Your task to perform on an android device: Open the calendar and show me this week's events? Image 0: 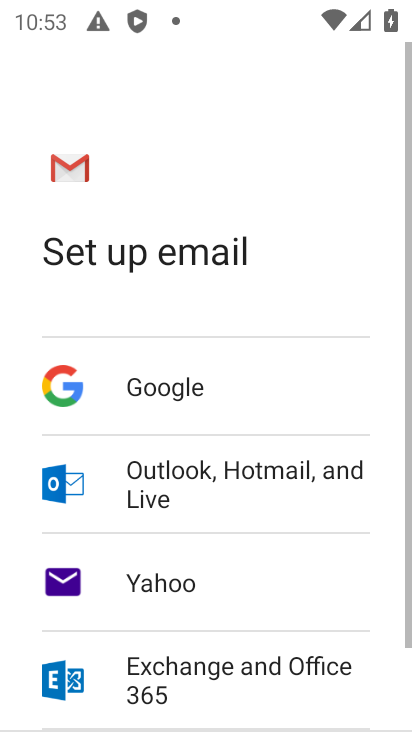
Step 0: press back button
Your task to perform on an android device: Open the calendar and show me this week's events? Image 1: 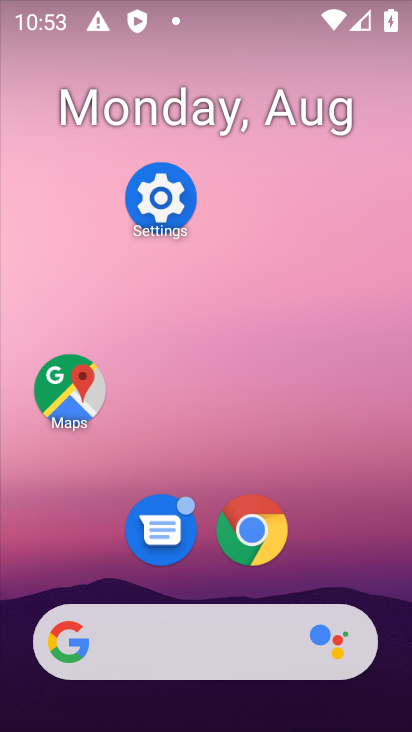
Step 1: click (113, 95)
Your task to perform on an android device: Open the calendar and show me this week's events? Image 2: 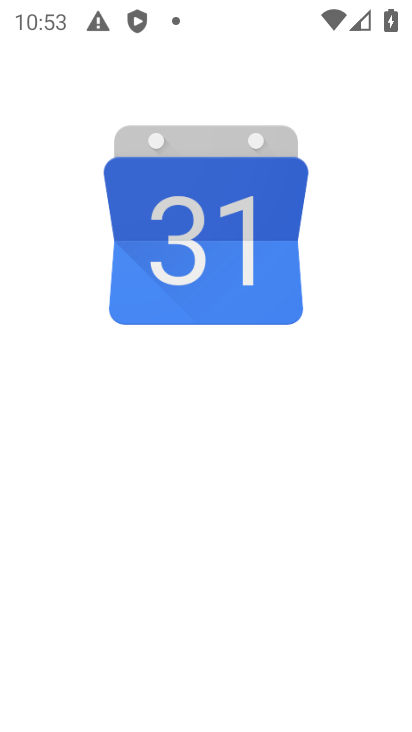
Step 2: click (173, 127)
Your task to perform on an android device: Open the calendar and show me this week's events? Image 3: 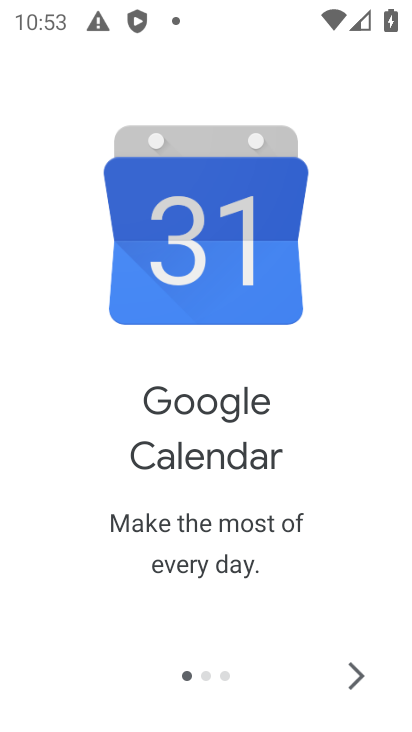
Step 3: press back button
Your task to perform on an android device: Open the calendar and show me this week's events? Image 4: 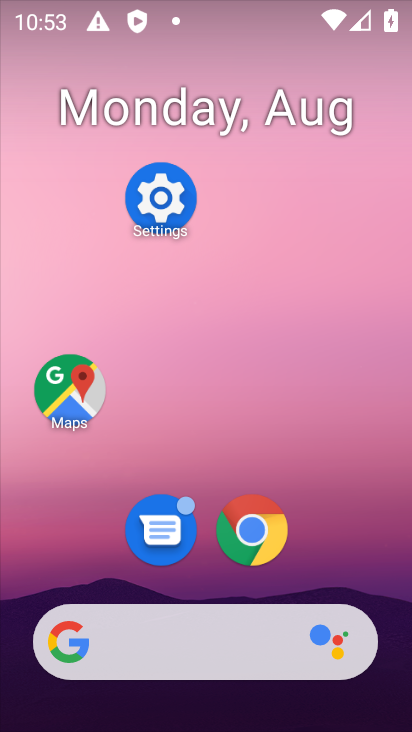
Step 4: drag from (139, 622) to (70, 200)
Your task to perform on an android device: Open the calendar and show me this week's events? Image 5: 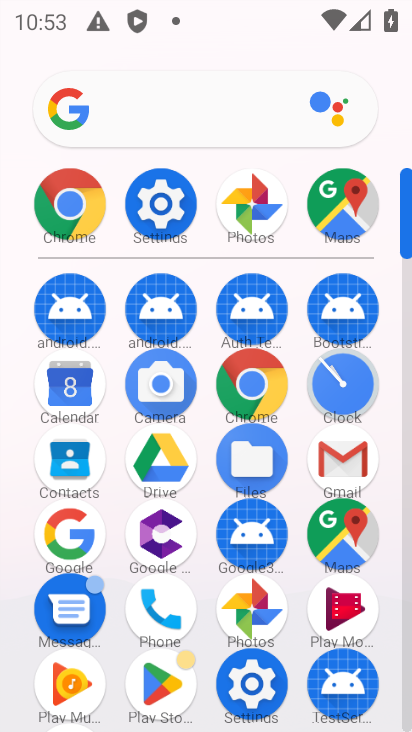
Step 5: click (62, 394)
Your task to perform on an android device: Open the calendar and show me this week's events? Image 6: 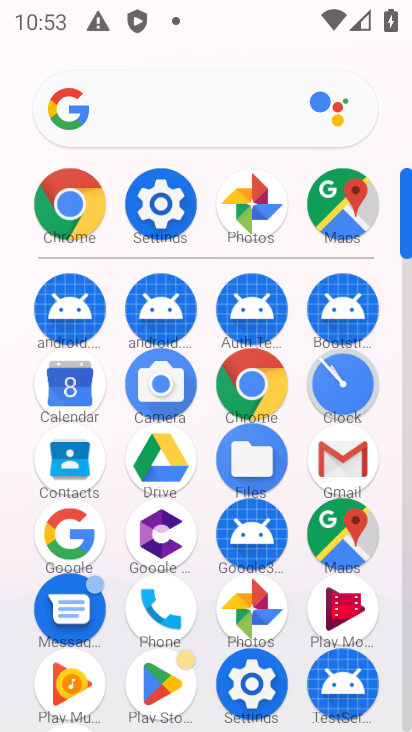
Step 6: click (69, 385)
Your task to perform on an android device: Open the calendar and show me this week's events? Image 7: 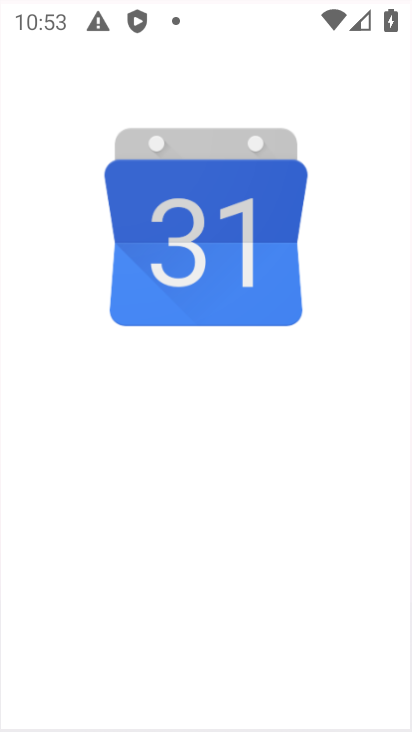
Step 7: click (78, 384)
Your task to perform on an android device: Open the calendar and show me this week's events? Image 8: 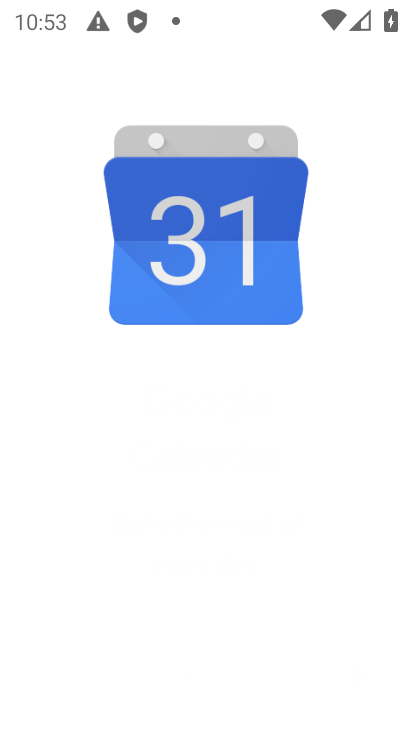
Step 8: click (79, 385)
Your task to perform on an android device: Open the calendar and show me this week's events? Image 9: 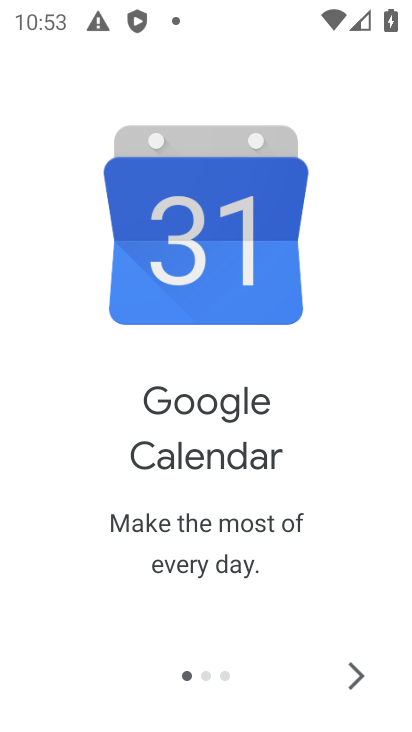
Step 9: click (356, 670)
Your task to perform on an android device: Open the calendar and show me this week's events? Image 10: 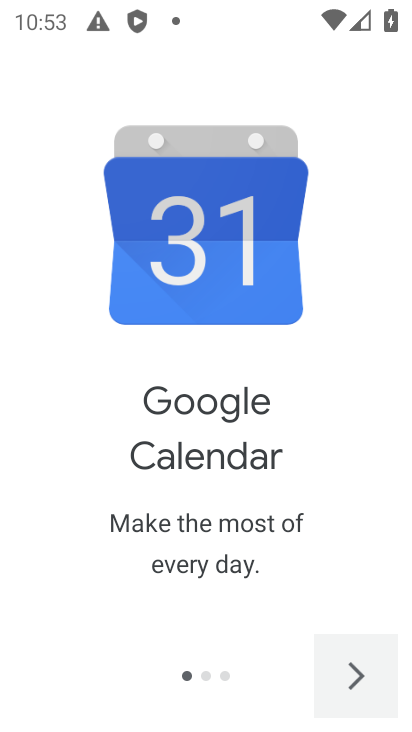
Step 10: click (357, 676)
Your task to perform on an android device: Open the calendar and show me this week's events? Image 11: 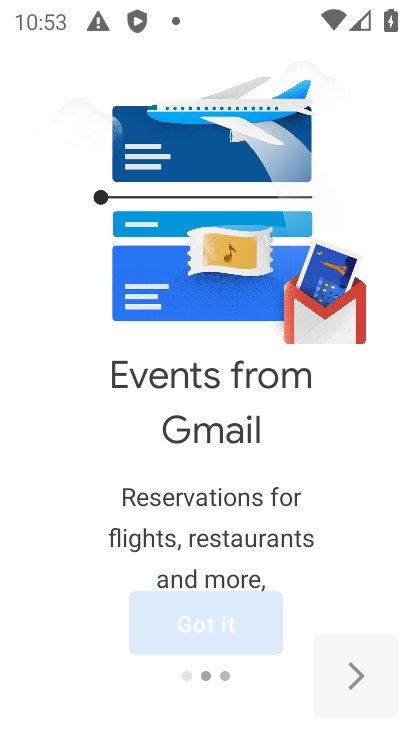
Step 11: click (358, 674)
Your task to perform on an android device: Open the calendar and show me this week's events? Image 12: 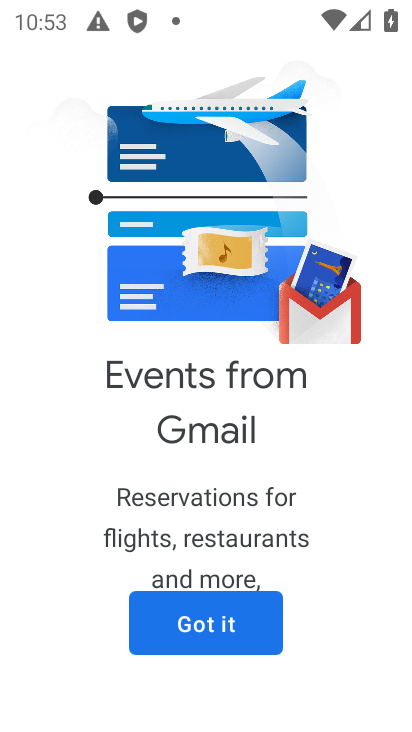
Step 12: click (359, 674)
Your task to perform on an android device: Open the calendar and show me this week's events? Image 13: 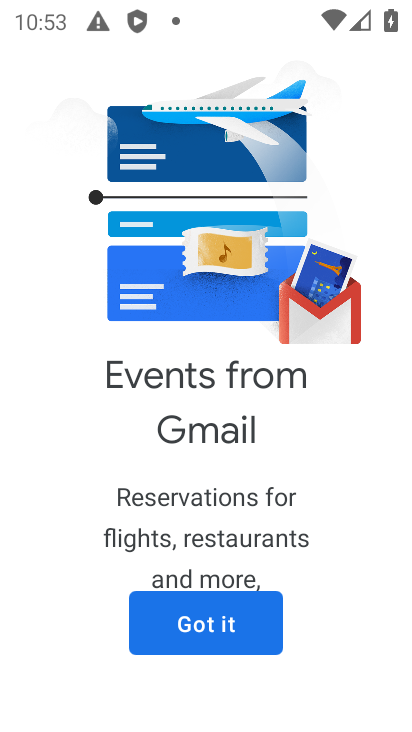
Step 13: click (360, 674)
Your task to perform on an android device: Open the calendar and show me this week's events? Image 14: 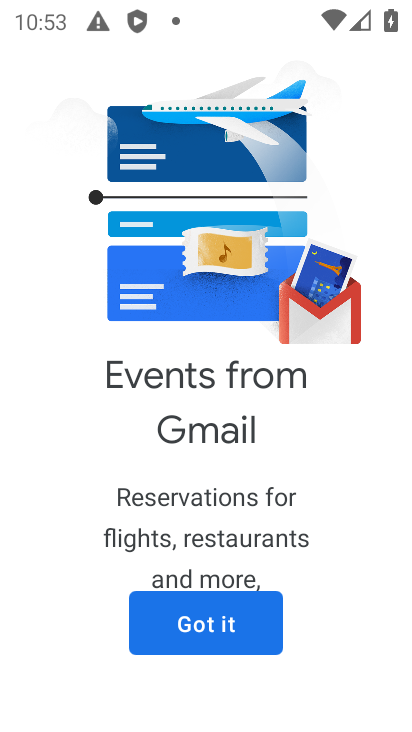
Step 14: click (360, 674)
Your task to perform on an android device: Open the calendar and show me this week's events? Image 15: 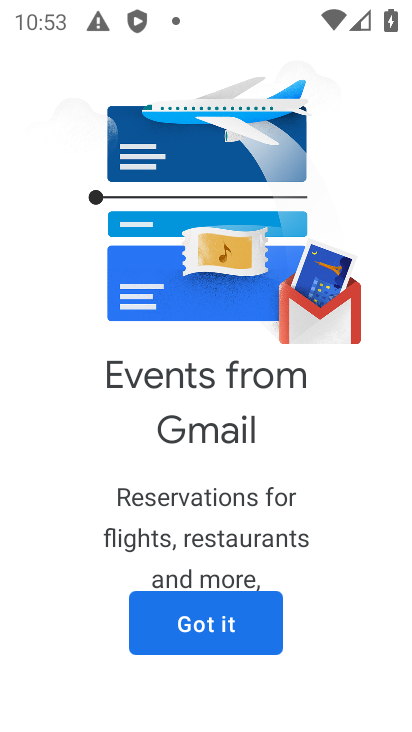
Step 15: click (212, 634)
Your task to perform on an android device: Open the calendar and show me this week's events? Image 16: 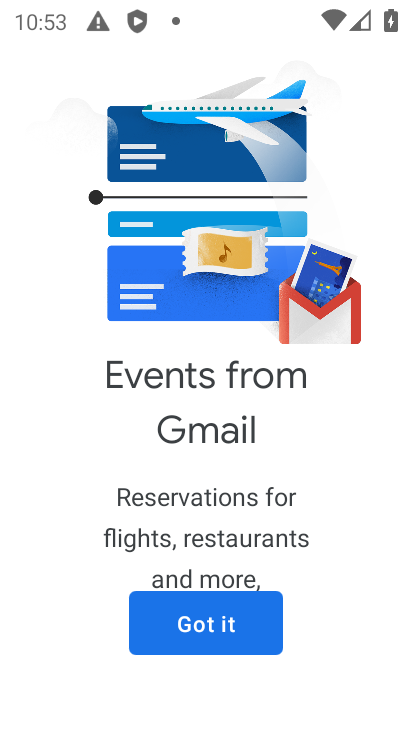
Step 16: click (251, 604)
Your task to perform on an android device: Open the calendar and show me this week's events? Image 17: 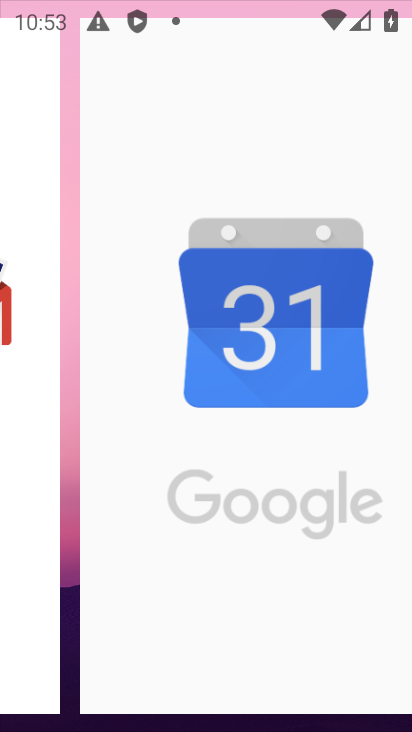
Step 17: click (245, 610)
Your task to perform on an android device: Open the calendar and show me this week's events? Image 18: 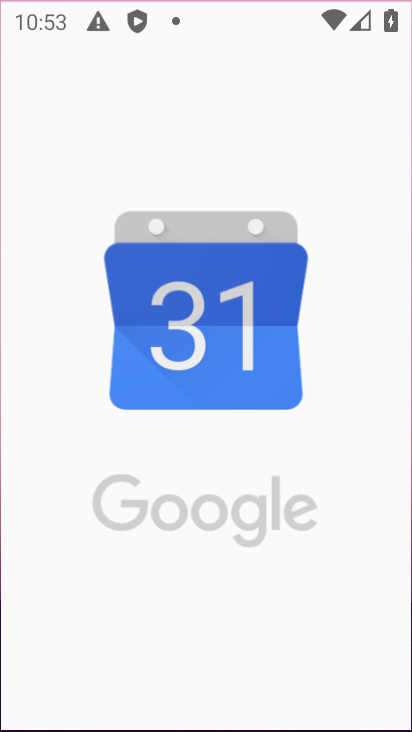
Step 18: click (245, 610)
Your task to perform on an android device: Open the calendar and show me this week's events? Image 19: 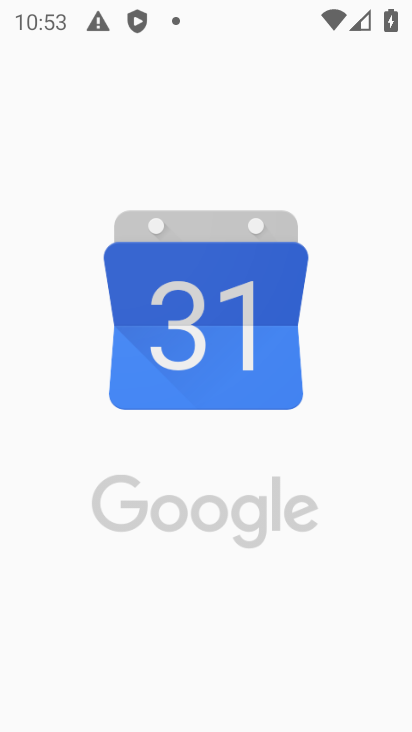
Step 19: click (245, 610)
Your task to perform on an android device: Open the calendar and show me this week's events? Image 20: 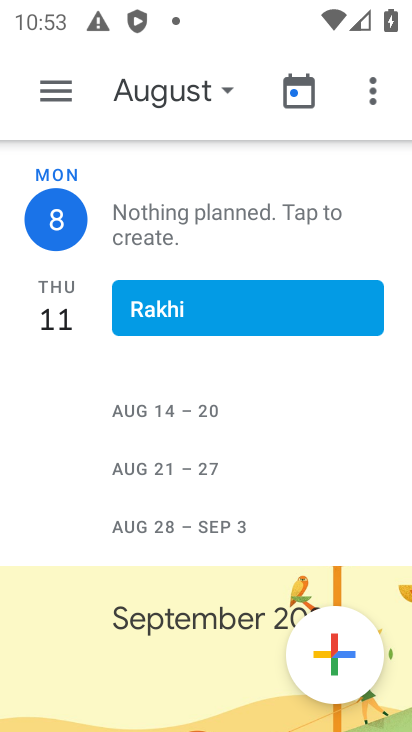
Step 20: click (224, 86)
Your task to perform on an android device: Open the calendar and show me this week's events? Image 21: 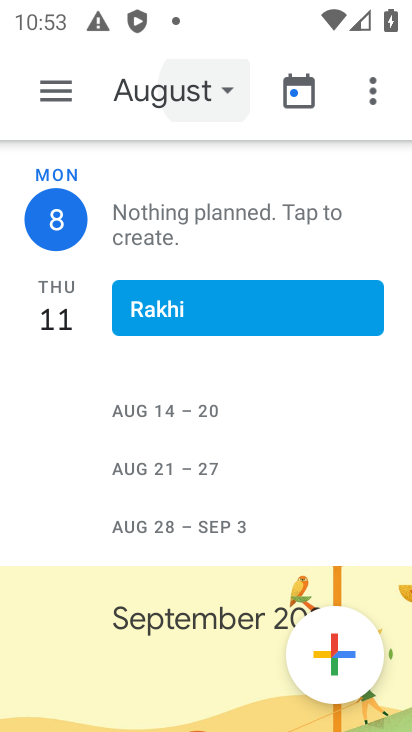
Step 21: click (225, 86)
Your task to perform on an android device: Open the calendar and show me this week's events? Image 22: 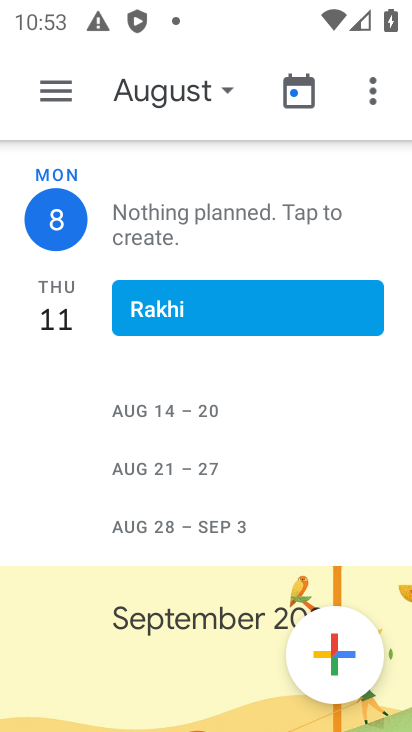
Step 22: click (224, 89)
Your task to perform on an android device: Open the calendar and show me this week's events? Image 23: 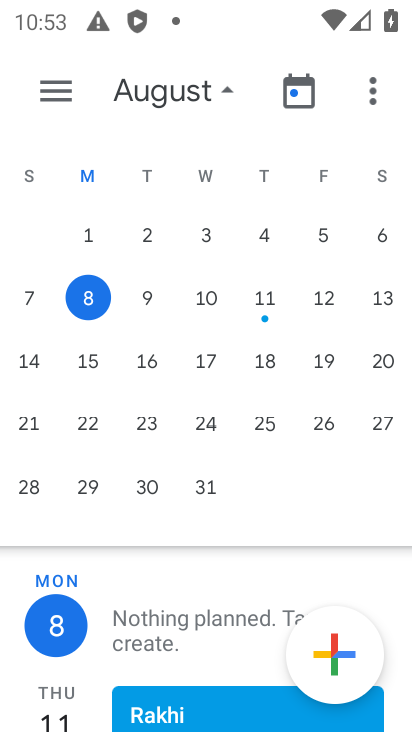
Step 23: click (153, 293)
Your task to perform on an android device: Open the calendar and show me this week's events? Image 24: 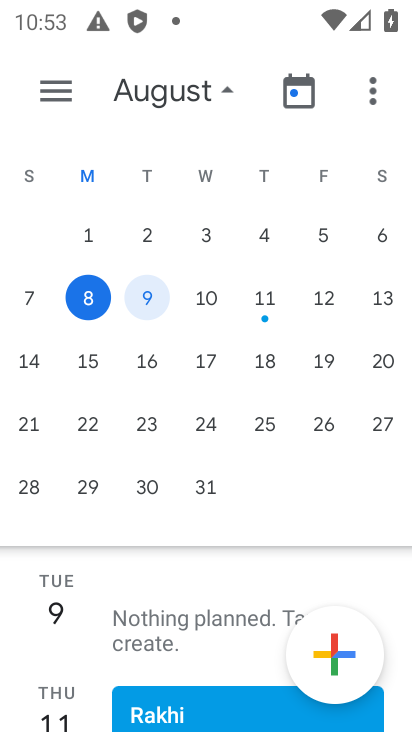
Step 24: click (155, 294)
Your task to perform on an android device: Open the calendar and show me this week's events? Image 25: 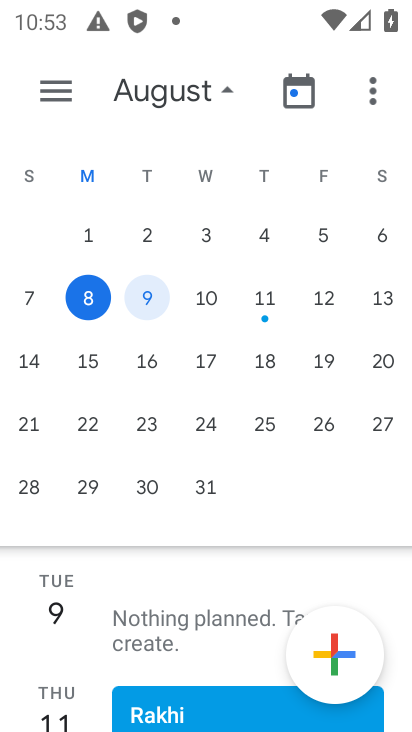
Step 25: click (155, 294)
Your task to perform on an android device: Open the calendar and show me this week's events? Image 26: 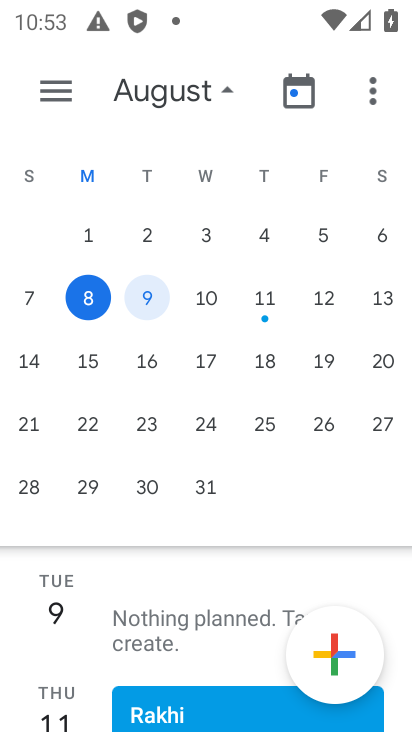
Step 26: click (156, 295)
Your task to perform on an android device: Open the calendar and show me this week's events? Image 27: 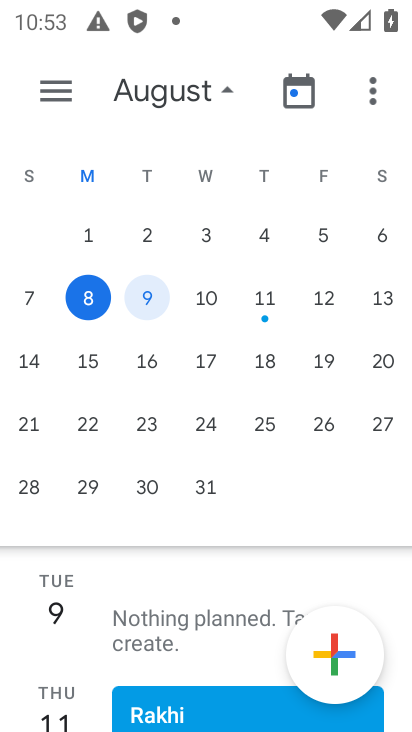
Step 27: click (257, 282)
Your task to perform on an android device: Open the calendar and show me this week's events? Image 28: 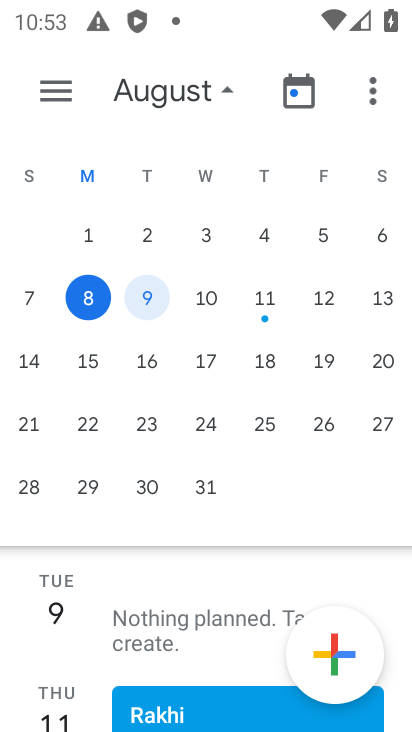
Step 28: click (259, 288)
Your task to perform on an android device: Open the calendar and show me this week's events? Image 29: 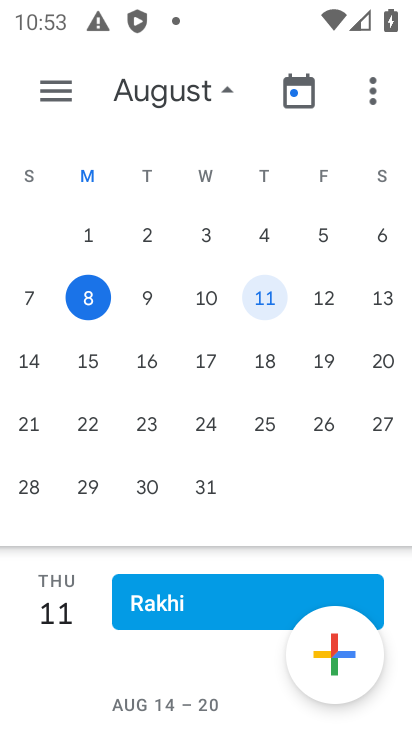
Step 29: click (264, 300)
Your task to perform on an android device: Open the calendar and show me this week's events? Image 30: 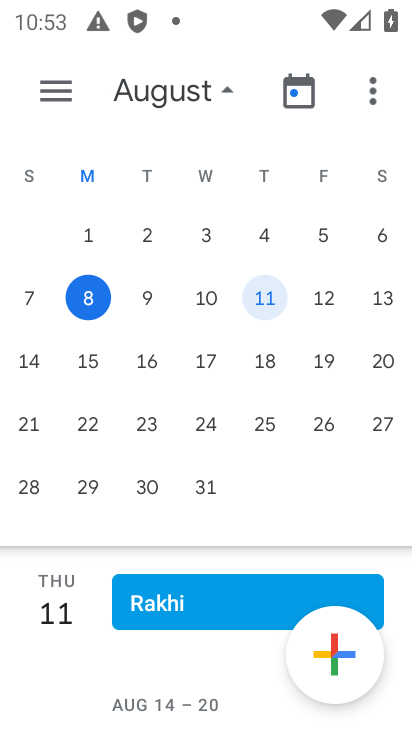
Step 30: click (267, 301)
Your task to perform on an android device: Open the calendar and show me this week's events? Image 31: 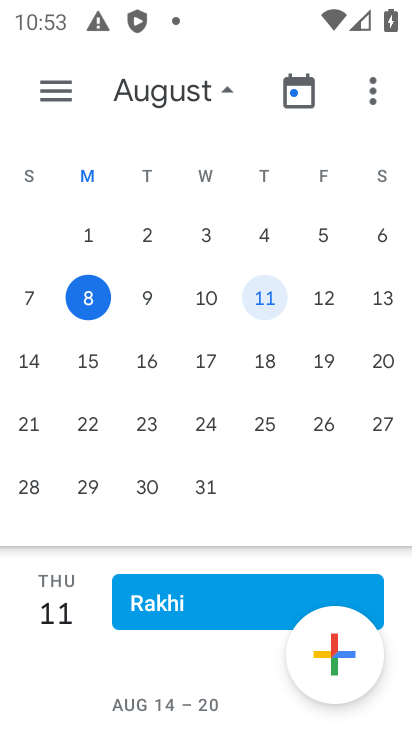
Step 31: click (279, 302)
Your task to perform on an android device: Open the calendar and show me this week's events? Image 32: 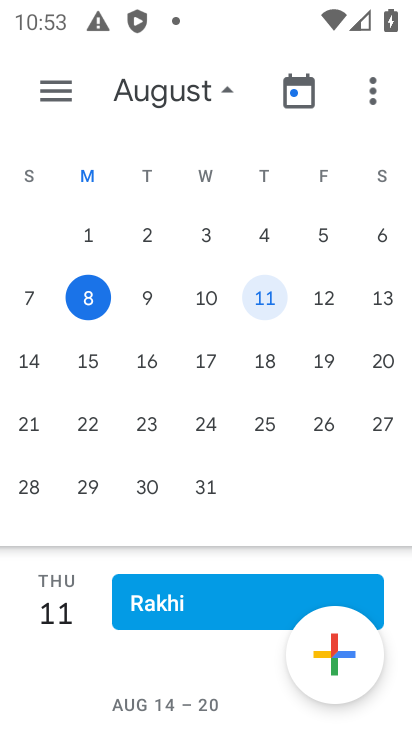
Step 32: task complete